Your task to perform on an android device: toggle wifi Image 0: 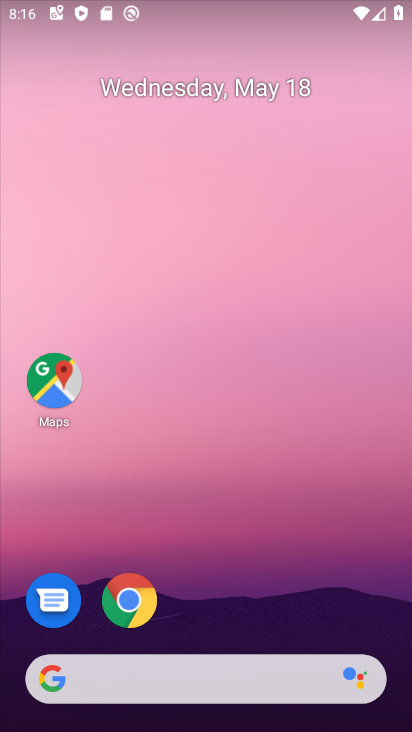
Step 0: drag from (112, 6) to (130, 646)
Your task to perform on an android device: toggle wifi Image 1: 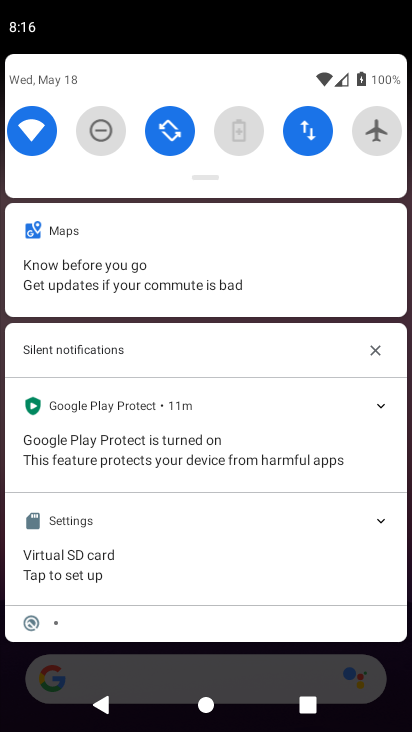
Step 1: click (35, 126)
Your task to perform on an android device: toggle wifi Image 2: 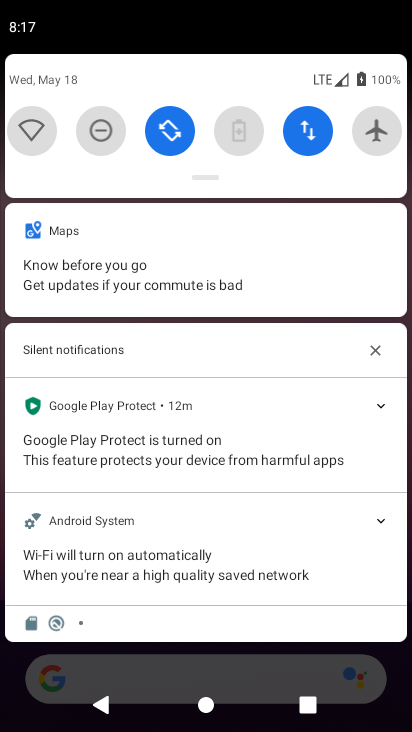
Step 2: task complete